Your task to perform on an android device: Open notification settings Image 0: 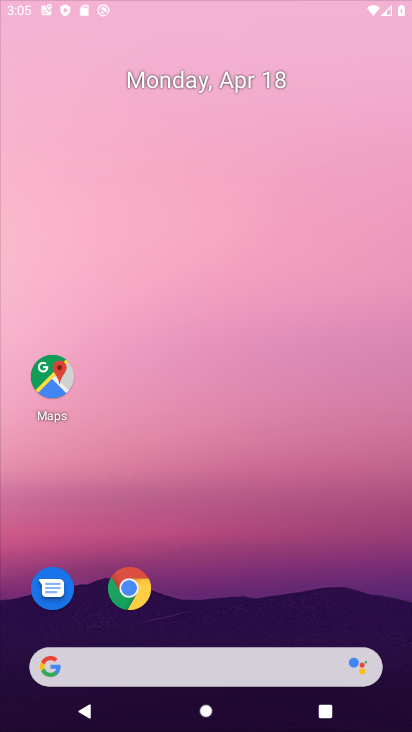
Step 0: click (240, 76)
Your task to perform on an android device: Open notification settings Image 1: 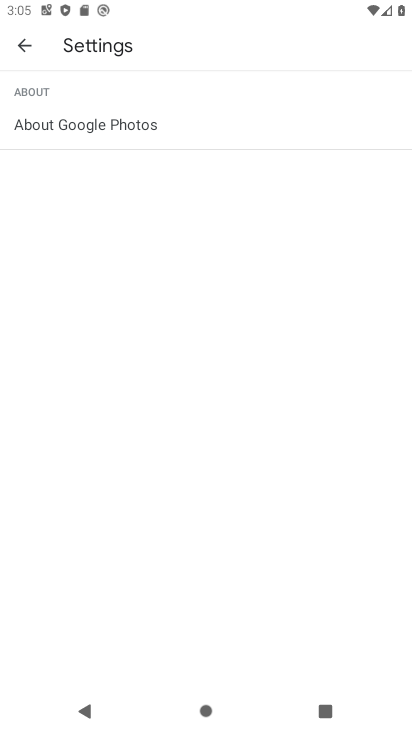
Step 1: press home button
Your task to perform on an android device: Open notification settings Image 2: 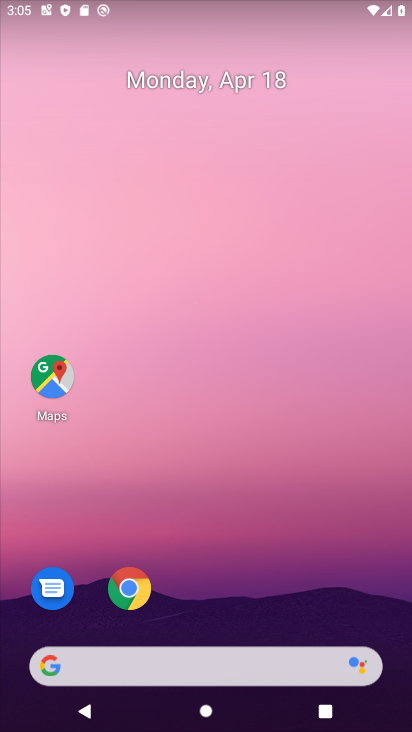
Step 2: drag from (200, 15) to (189, 582)
Your task to perform on an android device: Open notification settings Image 3: 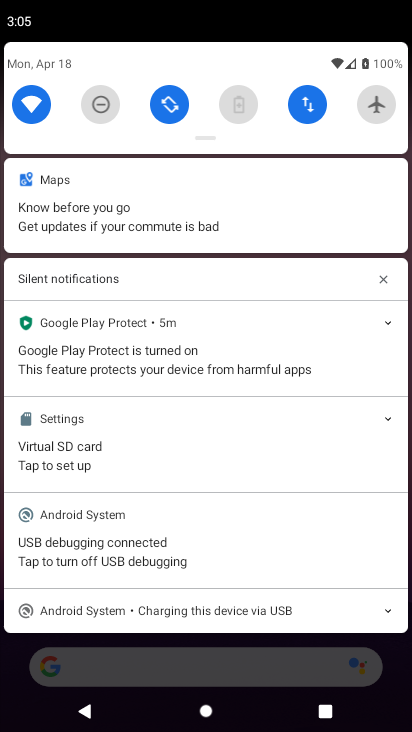
Step 3: drag from (206, 52) to (158, 621)
Your task to perform on an android device: Open notification settings Image 4: 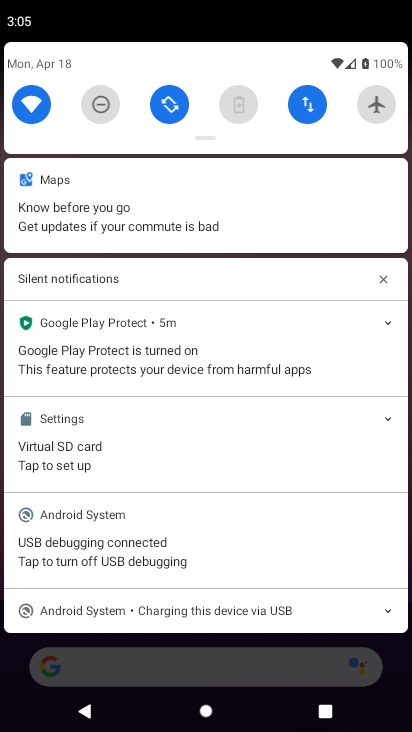
Step 4: drag from (201, 73) to (218, 543)
Your task to perform on an android device: Open notification settings Image 5: 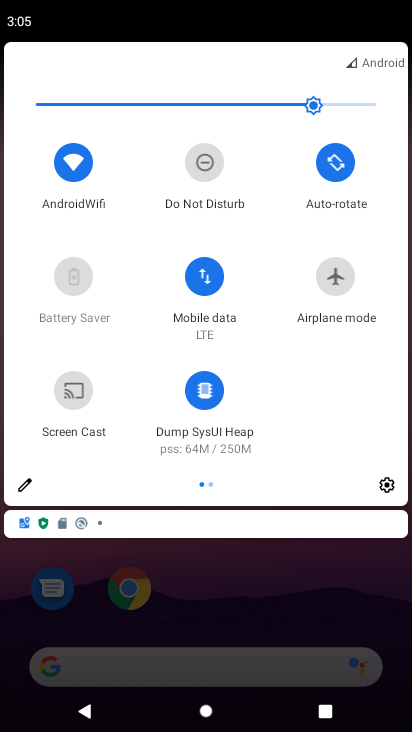
Step 5: click (391, 493)
Your task to perform on an android device: Open notification settings Image 6: 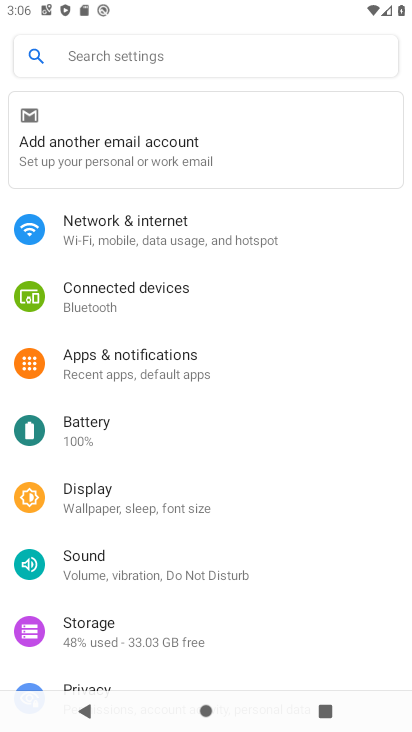
Step 6: click (158, 386)
Your task to perform on an android device: Open notification settings Image 7: 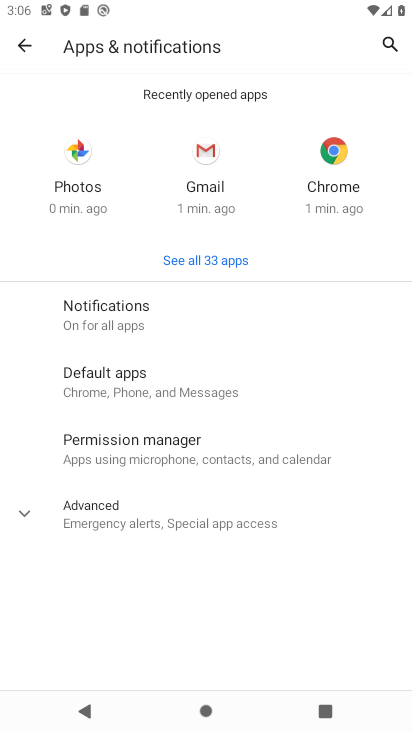
Step 7: task complete